Your task to perform on an android device: Search for "usb-a to usb-b" on newegg, select the first entry, and add it to the cart. Image 0: 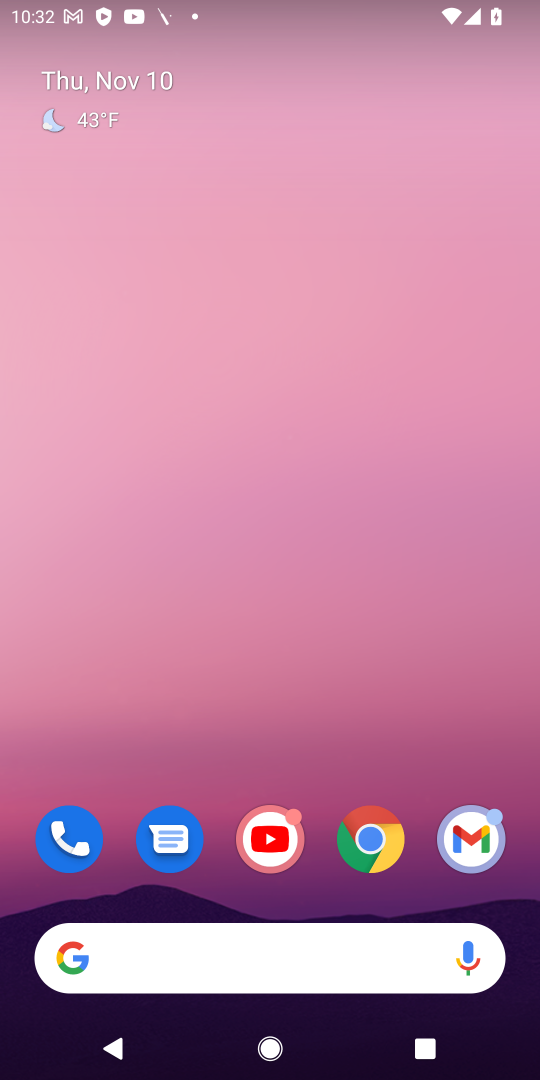
Step 0: click (387, 828)
Your task to perform on an android device: Search for "usb-a to usb-b" on newegg, select the first entry, and add it to the cart. Image 1: 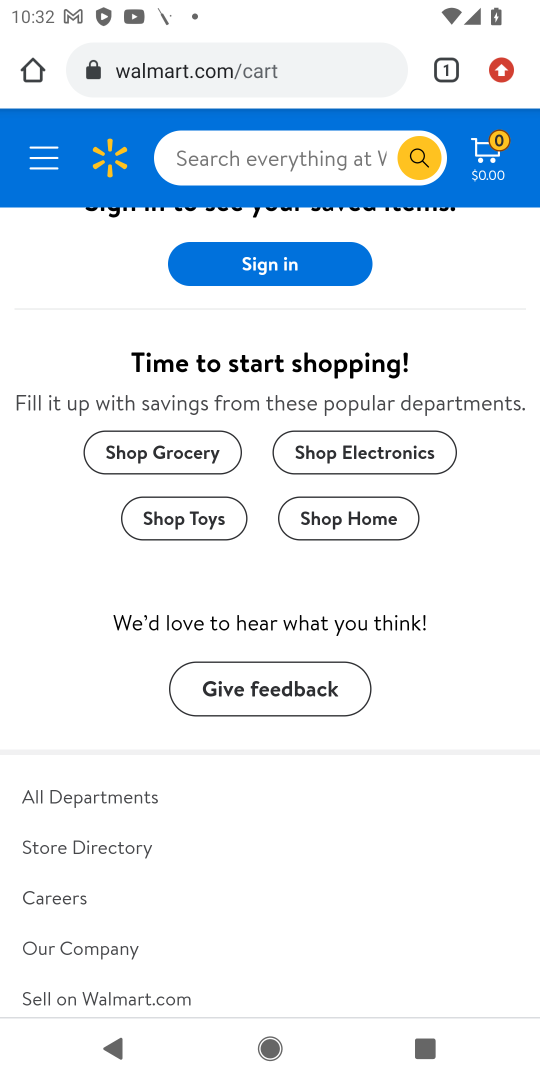
Step 1: click (226, 65)
Your task to perform on an android device: Search for "usb-a to usb-b" on newegg, select the first entry, and add it to the cart. Image 2: 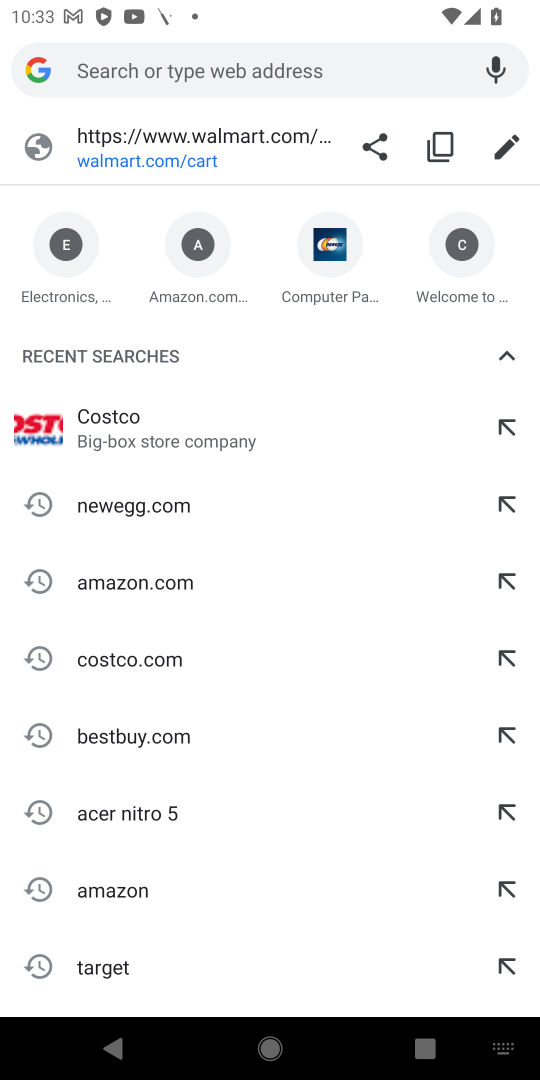
Step 2: click (138, 506)
Your task to perform on an android device: Search for "usb-a to usb-b" on newegg, select the first entry, and add it to the cart. Image 3: 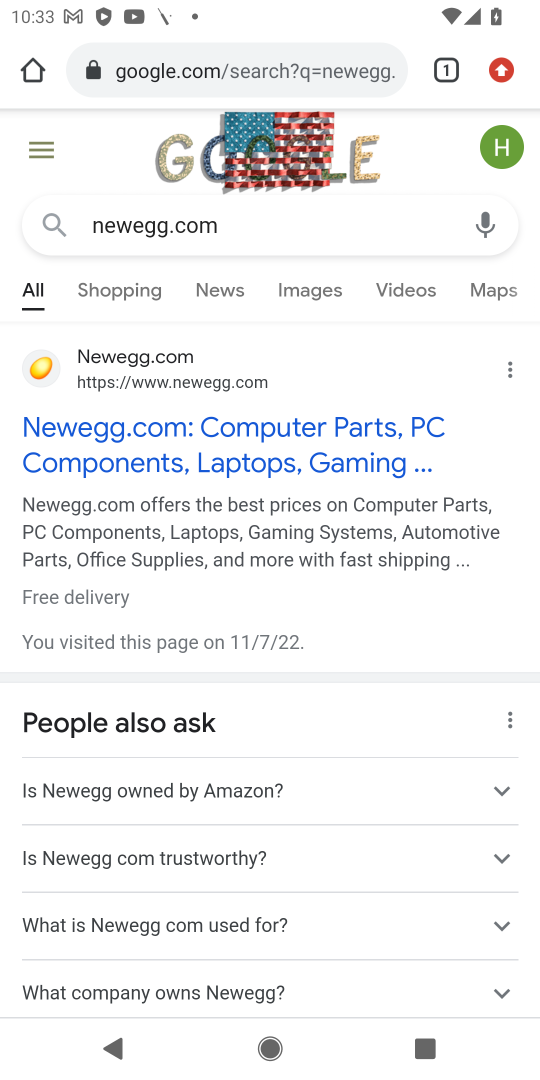
Step 3: drag from (307, 828) to (341, 376)
Your task to perform on an android device: Search for "usb-a to usb-b" on newegg, select the first entry, and add it to the cart. Image 4: 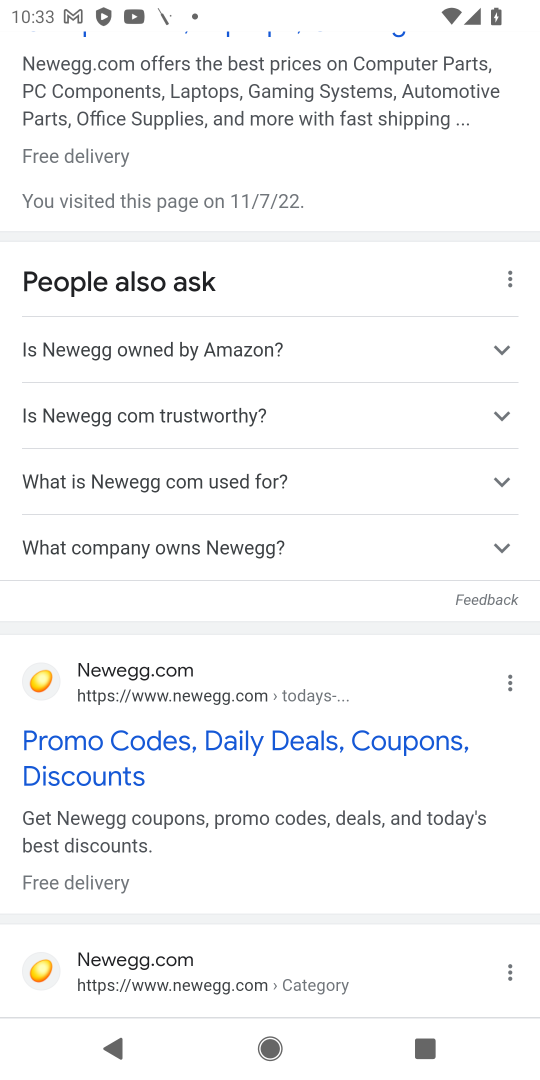
Step 4: click (218, 695)
Your task to perform on an android device: Search for "usb-a to usb-b" on newegg, select the first entry, and add it to the cart. Image 5: 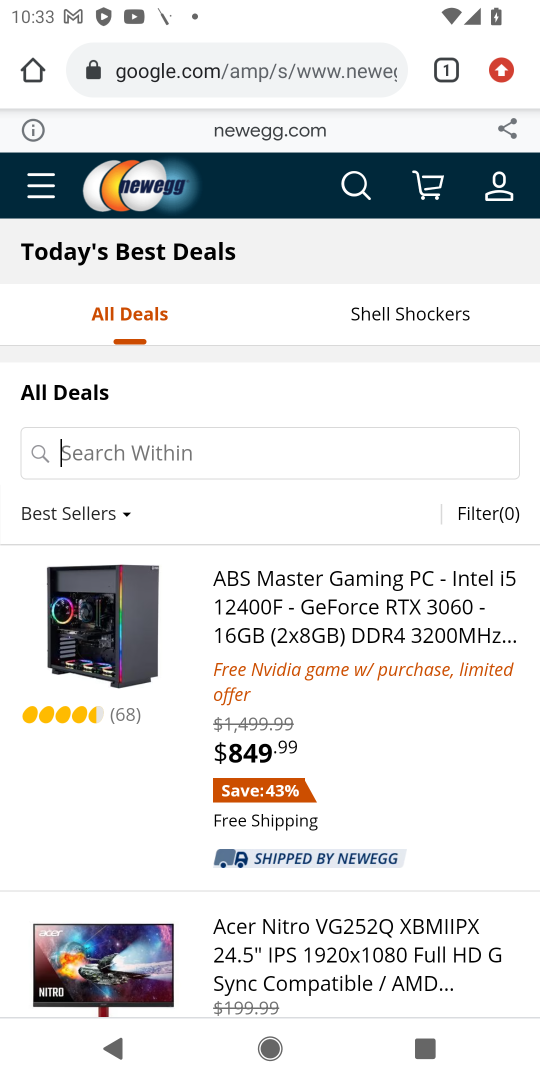
Step 5: click (358, 182)
Your task to perform on an android device: Search for "usb-a to usb-b" on newegg, select the first entry, and add it to the cart. Image 6: 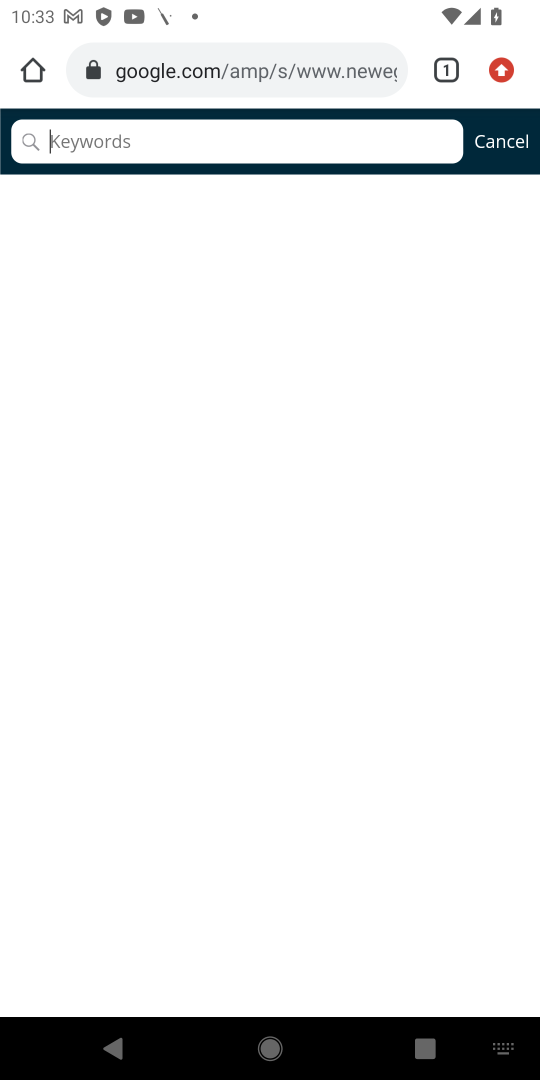
Step 6: type "usb-a to usb-b"
Your task to perform on an android device: Search for "usb-a to usb-b" on newegg, select the first entry, and add it to the cart. Image 7: 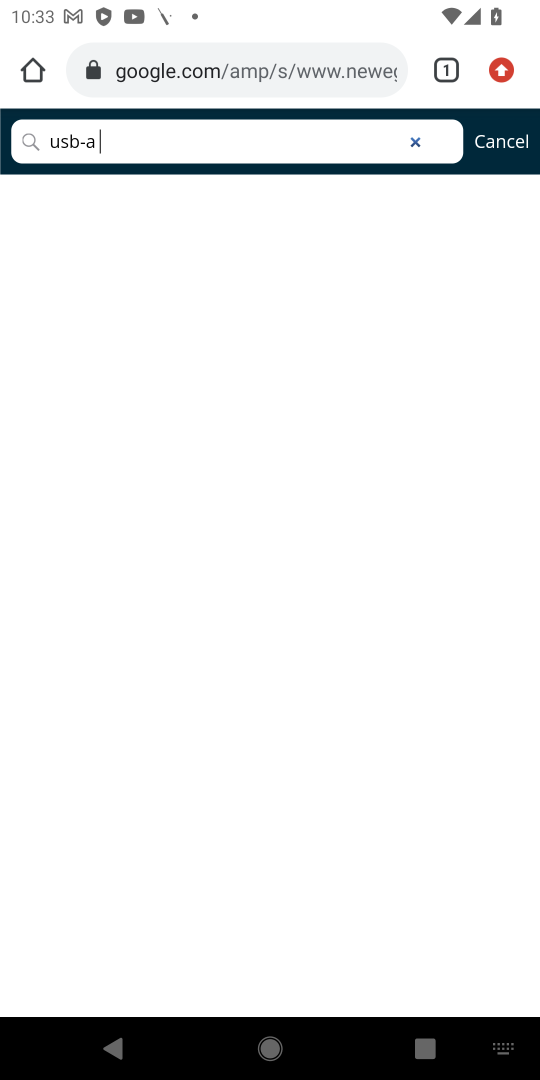
Step 7: press enter
Your task to perform on an android device: Search for "usb-a to usb-b" on newegg, select the first entry, and add it to the cart. Image 8: 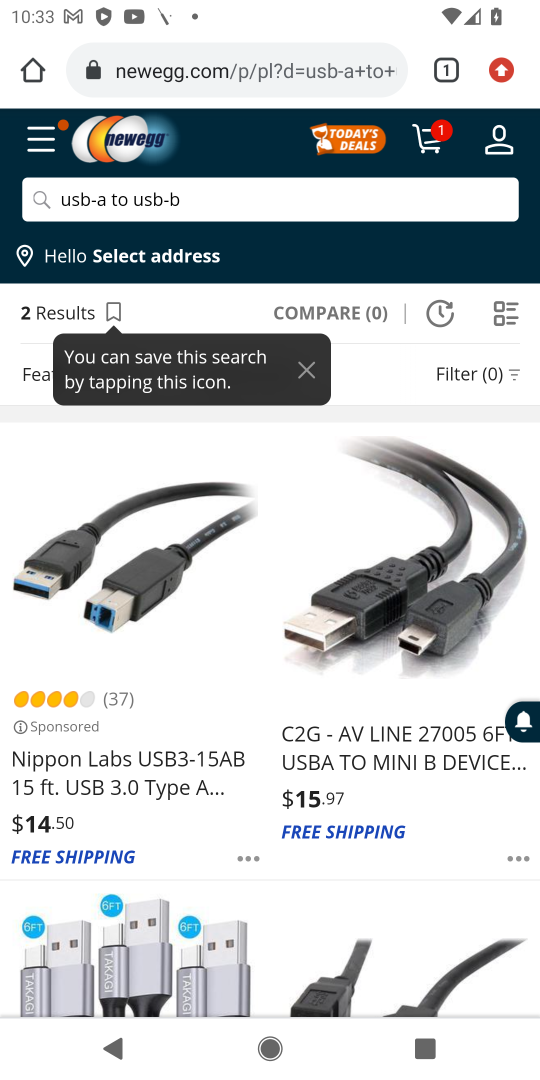
Step 8: drag from (424, 762) to (455, 367)
Your task to perform on an android device: Search for "usb-a to usb-b" on newegg, select the first entry, and add it to the cart. Image 9: 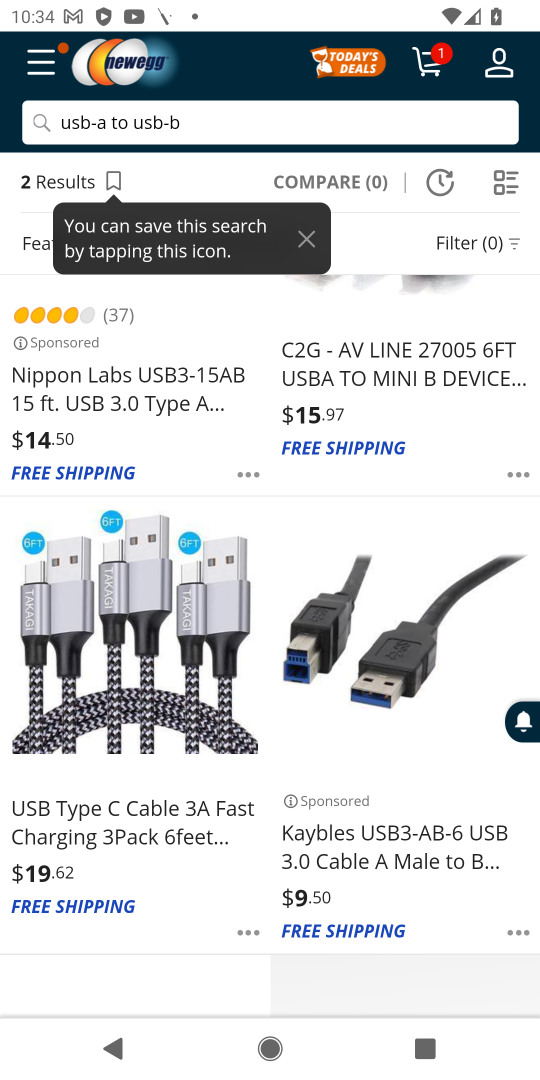
Step 9: click (415, 744)
Your task to perform on an android device: Search for "usb-a to usb-b" on newegg, select the first entry, and add it to the cart. Image 10: 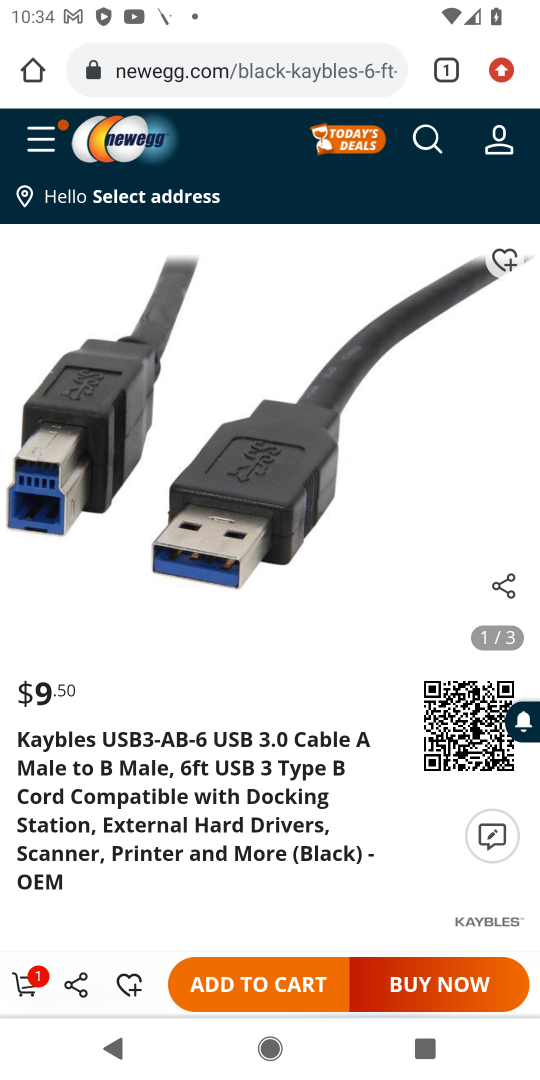
Step 10: drag from (328, 824) to (359, 486)
Your task to perform on an android device: Search for "usb-a to usb-b" on newegg, select the first entry, and add it to the cart. Image 11: 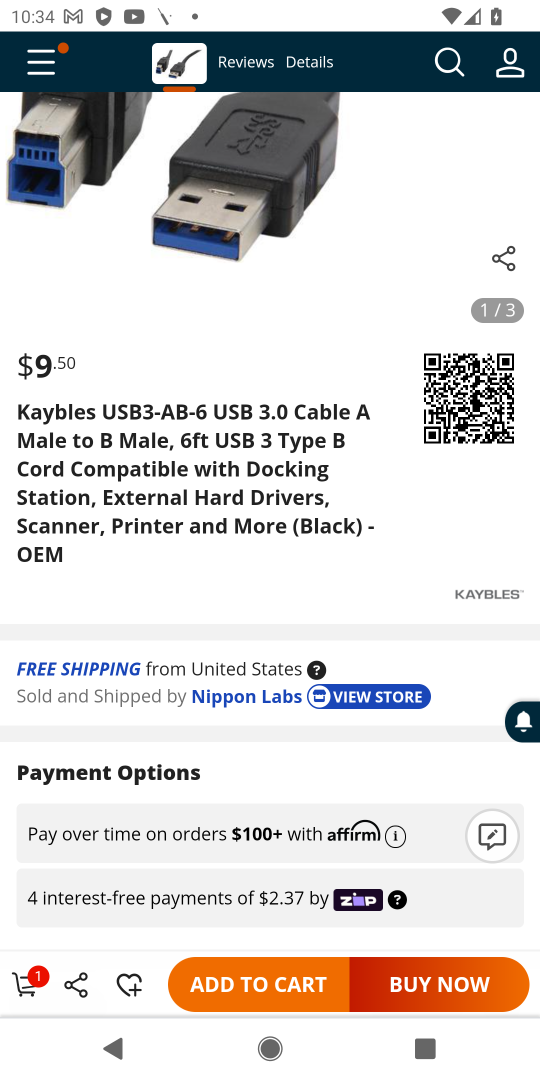
Step 11: click (268, 977)
Your task to perform on an android device: Search for "usb-a to usb-b" on newegg, select the first entry, and add it to the cart. Image 12: 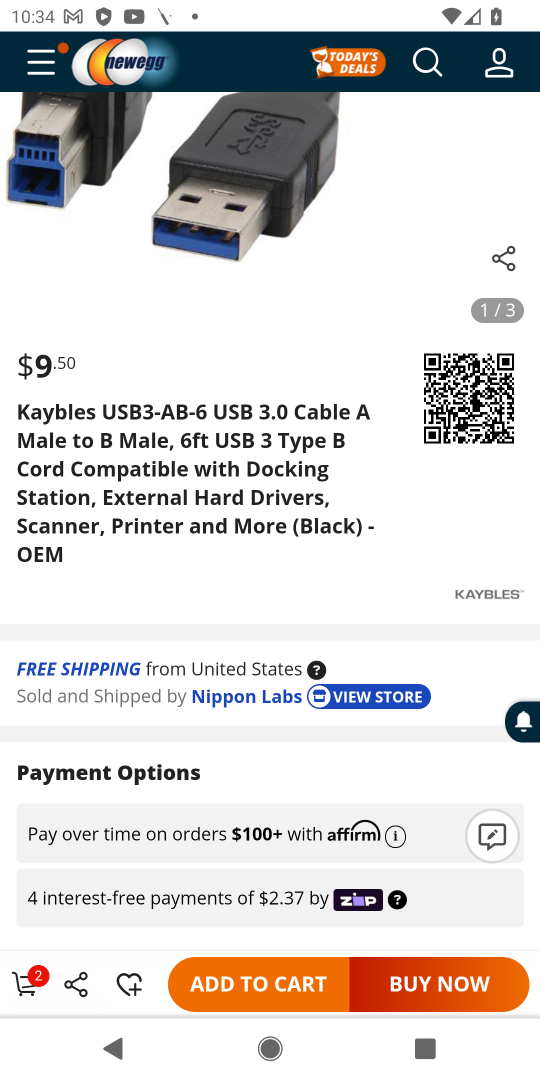
Step 12: click (22, 987)
Your task to perform on an android device: Search for "usb-a to usb-b" on newegg, select the first entry, and add it to the cart. Image 13: 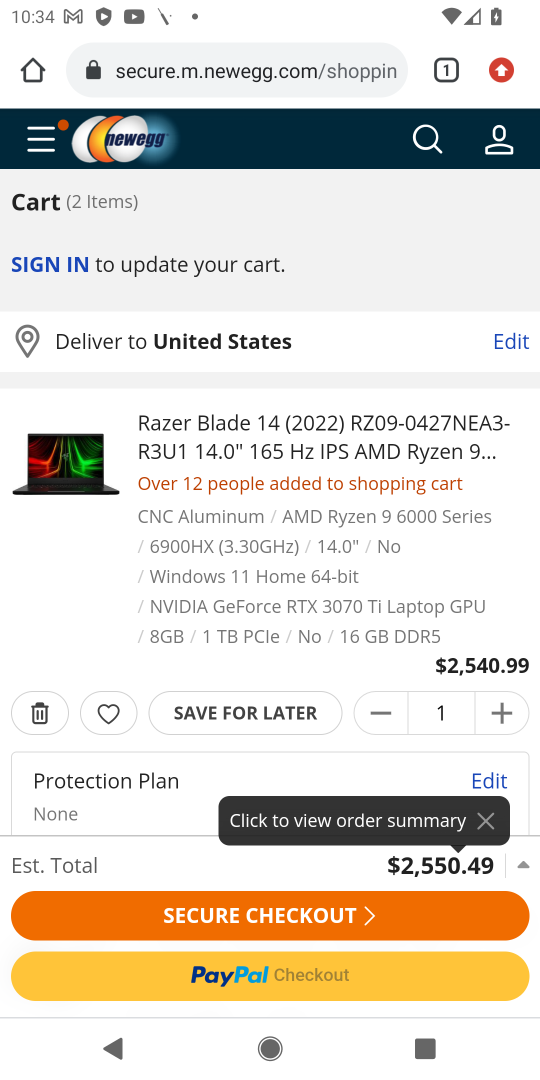
Step 13: task complete